Your task to perform on an android device: What's on my calendar tomorrow? Image 0: 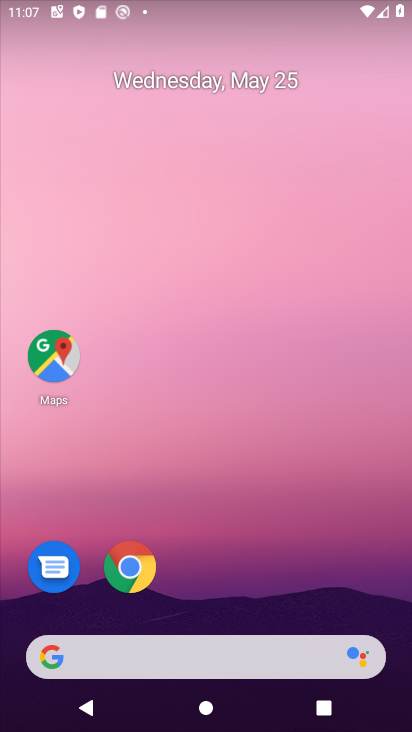
Step 0: drag from (216, 608) to (312, 9)
Your task to perform on an android device: What's on my calendar tomorrow? Image 1: 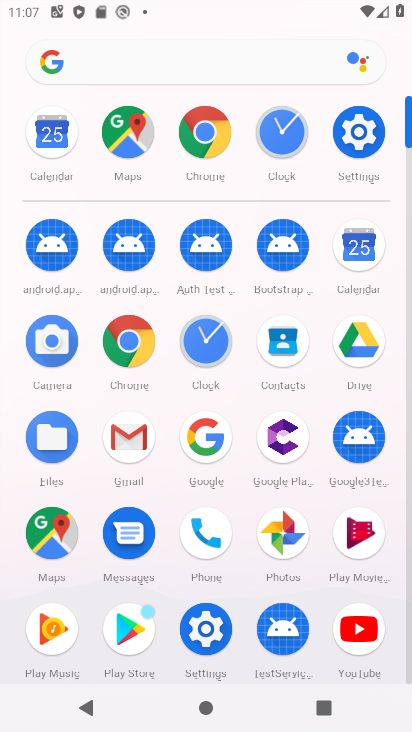
Step 1: click (363, 263)
Your task to perform on an android device: What's on my calendar tomorrow? Image 2: 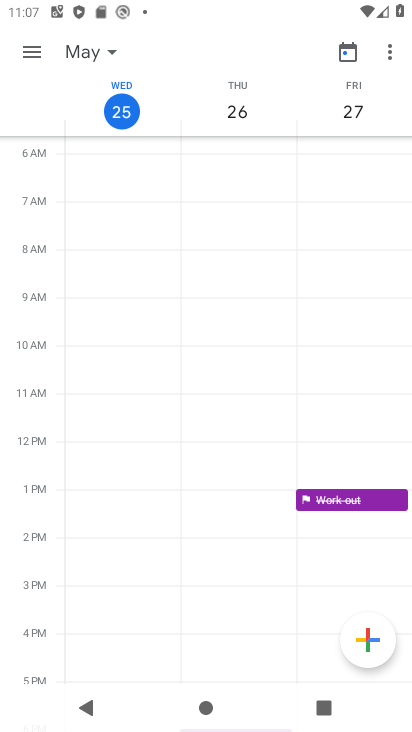
Step 2: task complete